Your task to perform on an android device: Open Reddit.com Image 0: 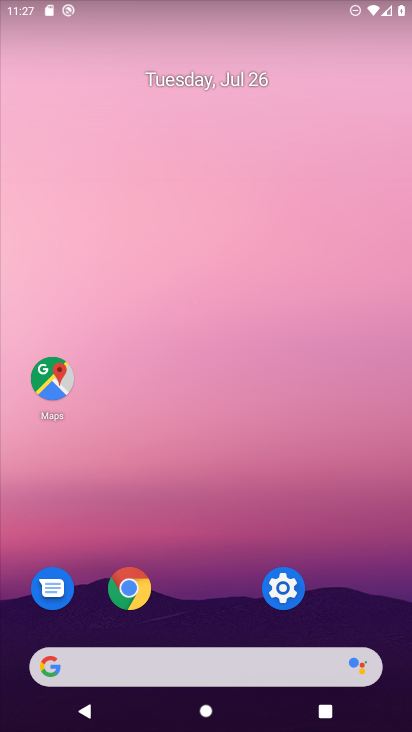
Step 0: press home button
Your task to perform on an android device: Open Reddit.com Image 1: 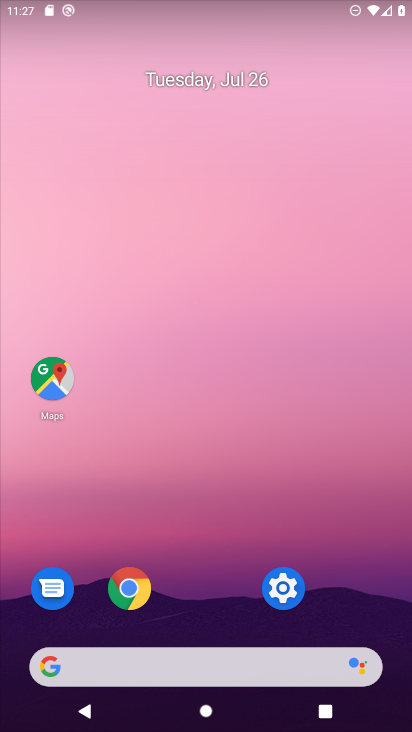
Step 1: click (152, 586)
Your task to perform on an android device: Open Reddit.com Image 2: 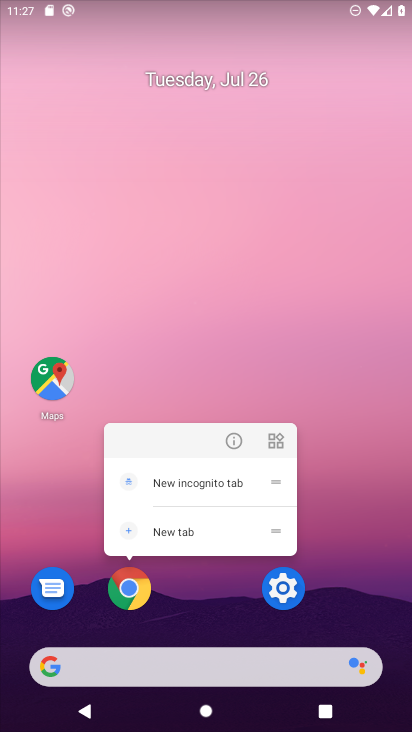
Step 2: click (111, 593)
Your task to perform on an android device: Open Reddit.com Image 3: 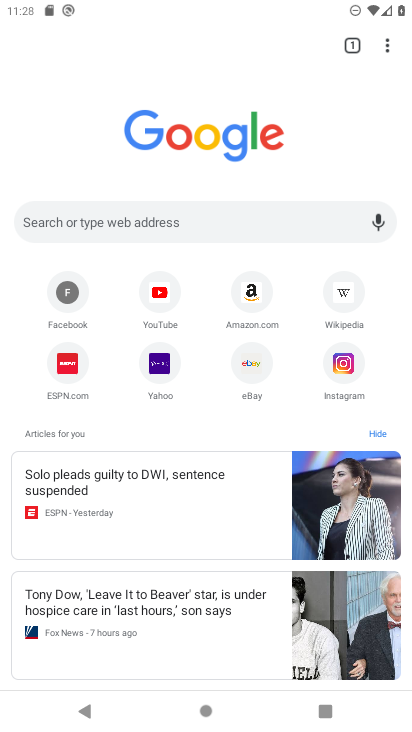
Step 3: click (154, 220)
Your task to perform on an android device: Open Reddit.com Image 4: 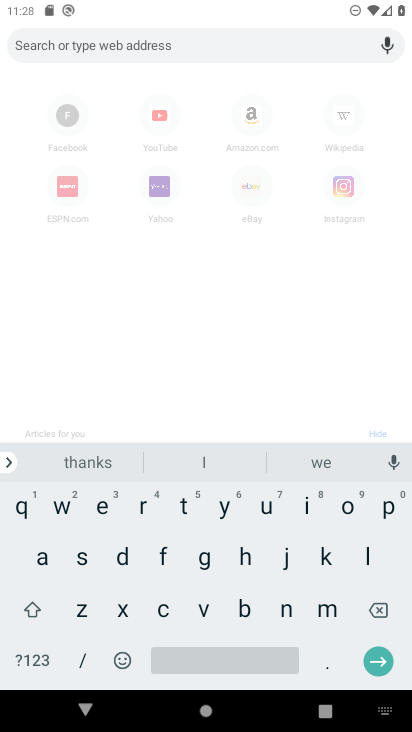
Step 4: click (139, 506)
Your task to perform on an android device: Open Reddit.com Image 5: 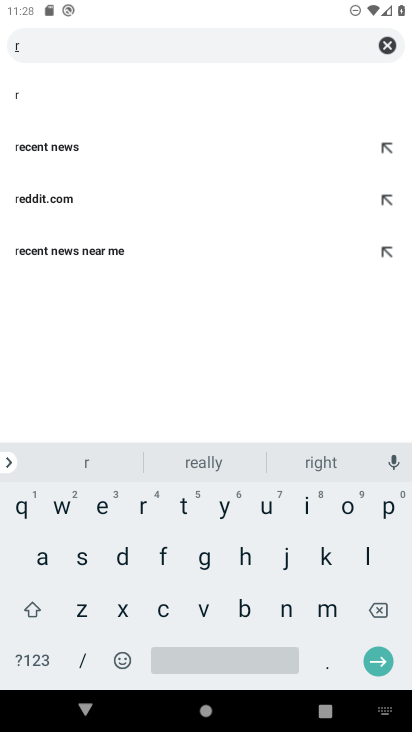
Step 5: click (99, 510)
Your task to perform on an android device: Open Reddit.com Image 6: 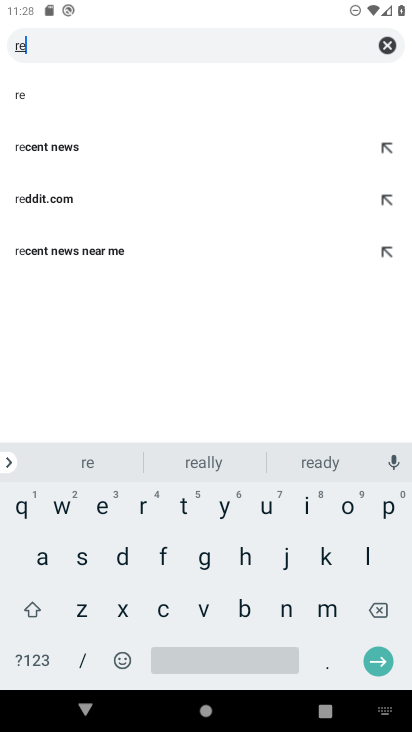
Step 6: click (65, 200)
Your task to perform on an android device: Open Reddit.com Image 7: 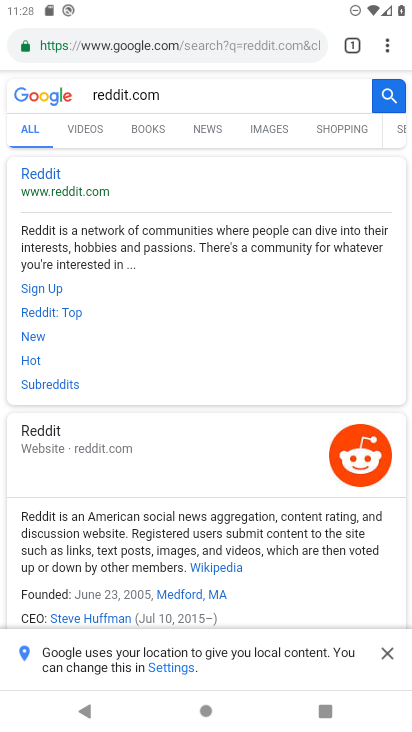
Step 7: click (43, 180)
Your task to perform on an android device: Open Reddit.com Image 8: 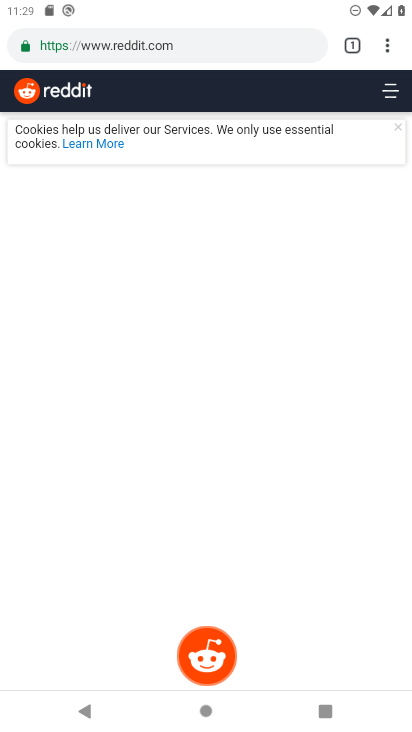
Step 8: task complete